Your task to perform on an android device: turn off location Image 0: 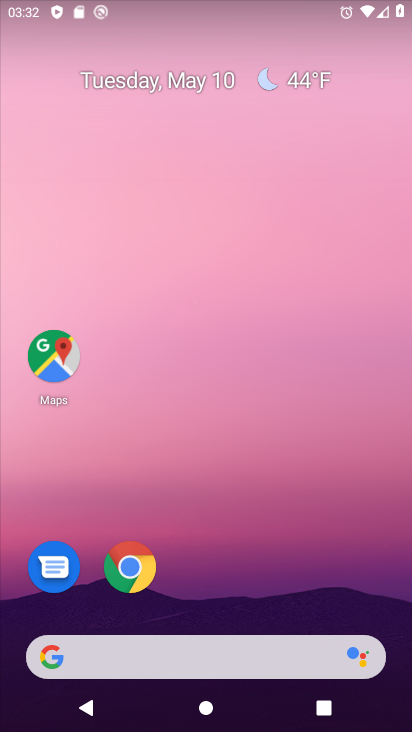
Step 0: drag from (233, 573) to (214, 110)
Your task to perform on an android device: turn off location Image 1: 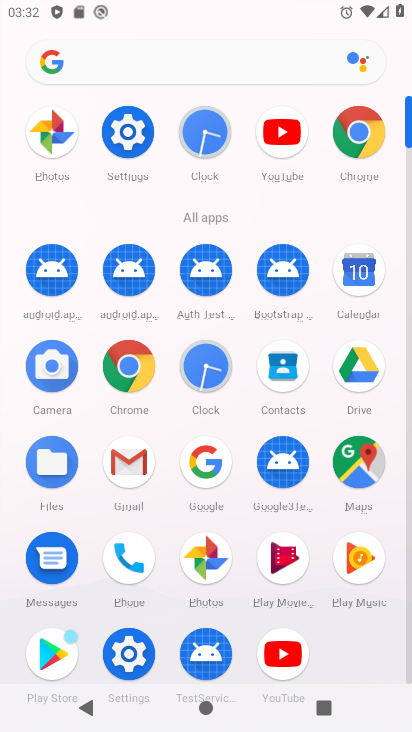
Step 1: click (127, 125)
Your task to perform on an android device: turn off location Image 2: 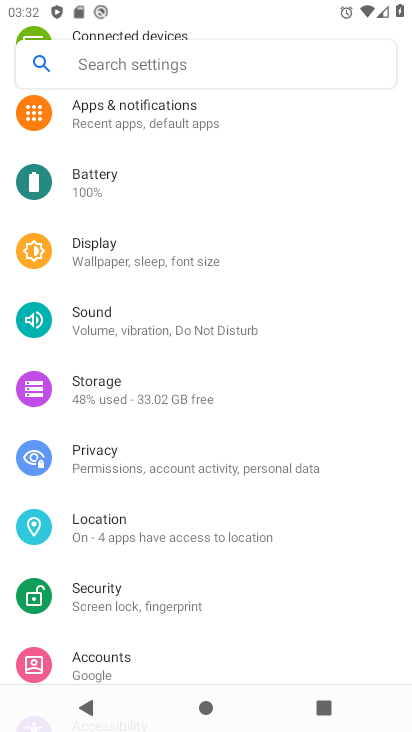
Step 2: click (131, 542)
Your task to perform on an android device: turn off location Image 3: 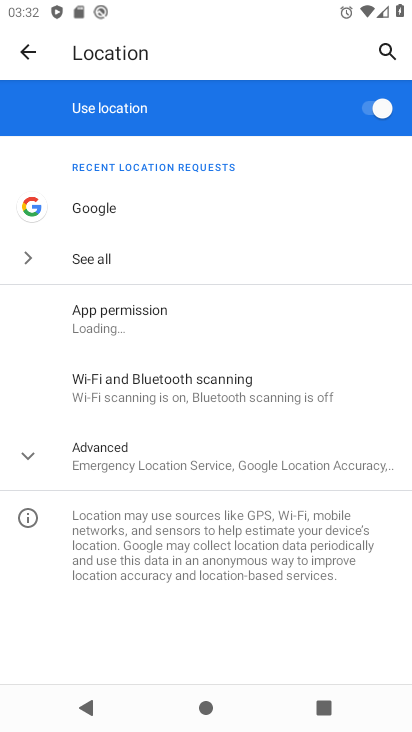
Step 3: click (379, 99)
Your task to perform on an android device: turn off location Image 4: 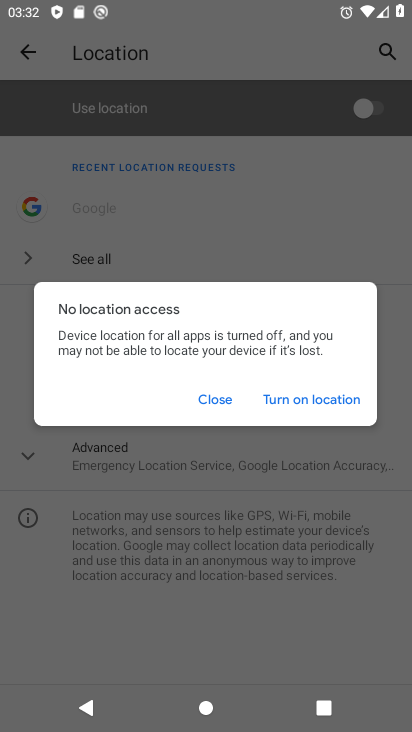
Step 4: click (222, 397)
Your task to perform on an android device: turn off location Image 5: 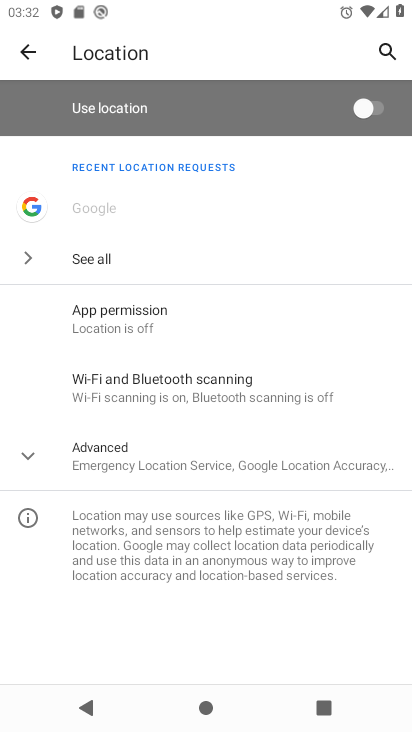
Step 5: task complete